Your task to perform on an android device: stop showing notifications on the lock screen Image 0: 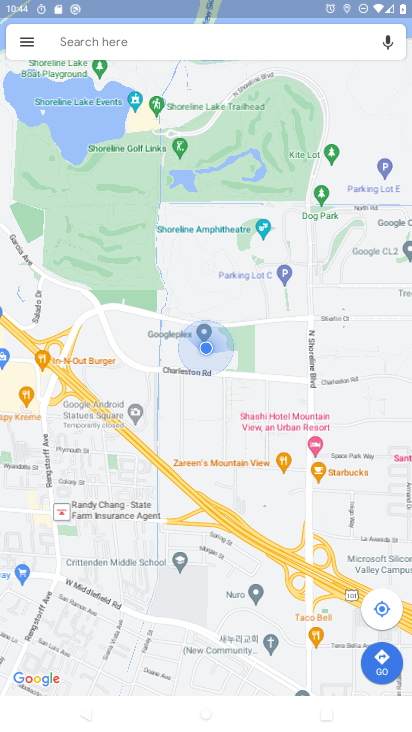
Step 0: press home button
Your task to perform on an android device: stop showing notifications on the lock screen Image 1: 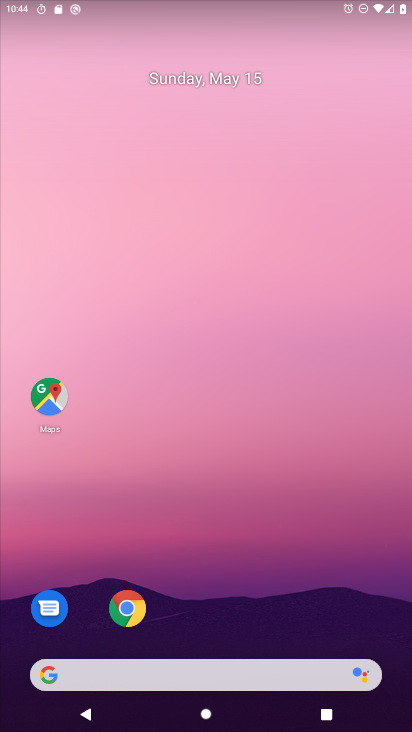
Step 1: drag from (301, 588) to (305, 91)
Your task to perform on an android device: stop showing notifications on the lock screen Image 2: 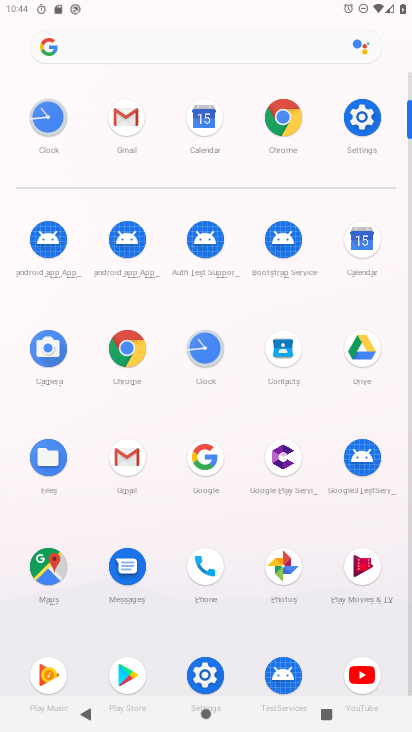
Step 2: drag from (317, 614) to (330, 310)
Your task to perform on an android device: stop showing notifications on the lock screen Image 3: 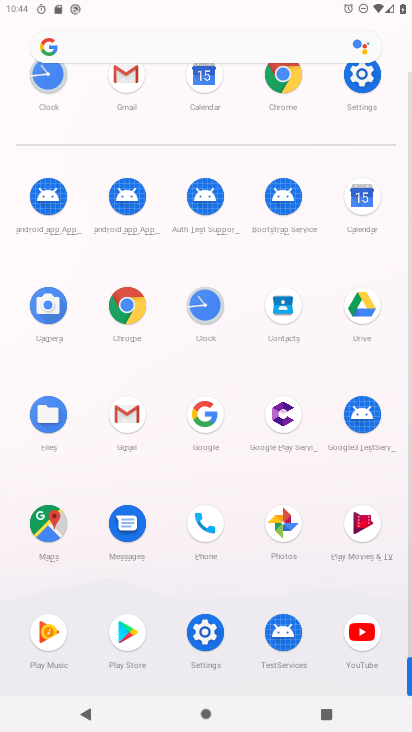
Step 3: click (210, 635)
Your task to perform on an android device: stop showing notifications on the lock screen Image 4: 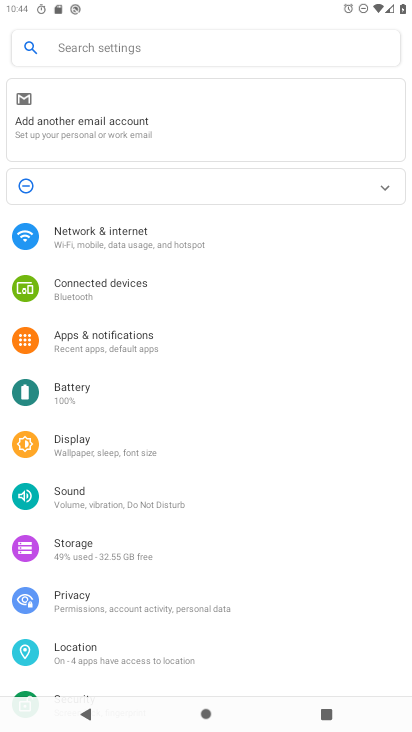
Step 4: drag from (200, 600) to (202, 357)
Your task to perform on an android device: stop showing notifications on the lock screen Image 5: 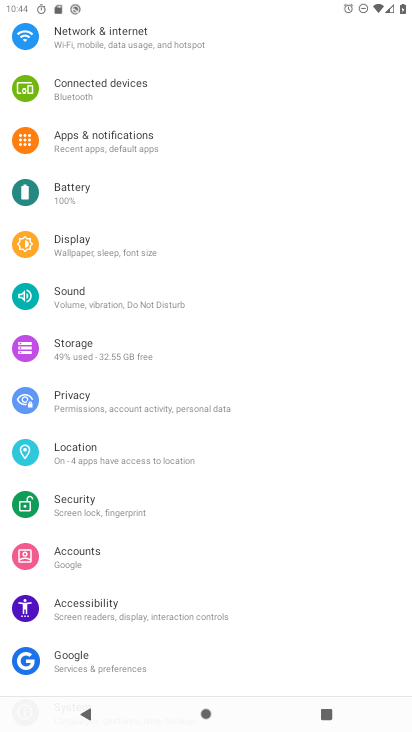
Step 5: click (153, 133)
Your task to perform on an android device: stop showing notifications on the lock screen Image 6: 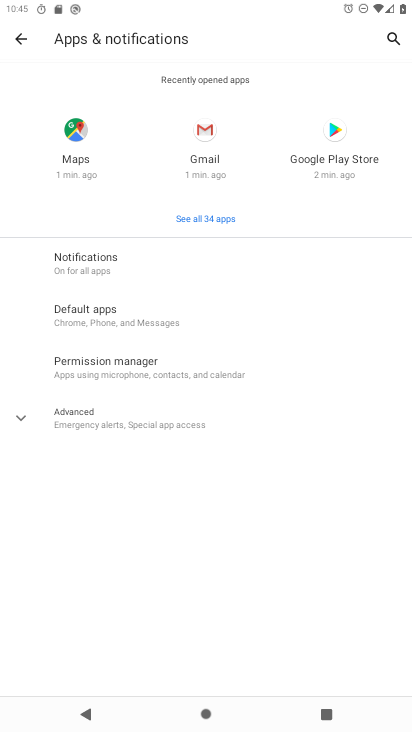
Step 6: click (108, 272)
Your task to perform on an android device: stop showing notifications on the lock screen Image 7: 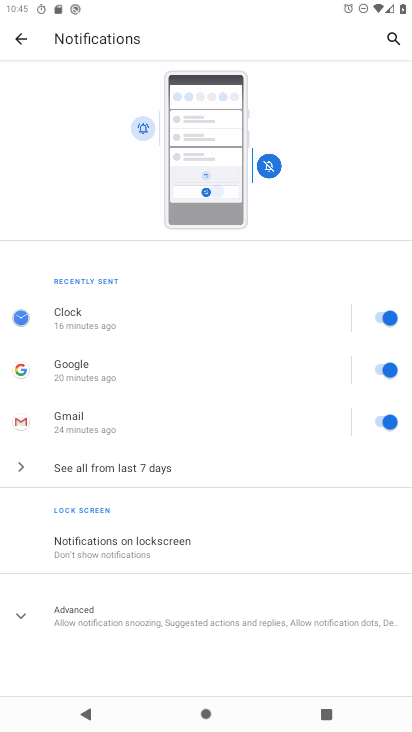
Step 7: click (180, 554)
Your task to perform on an android device: stop showing notifications on the lock screen Image 8: 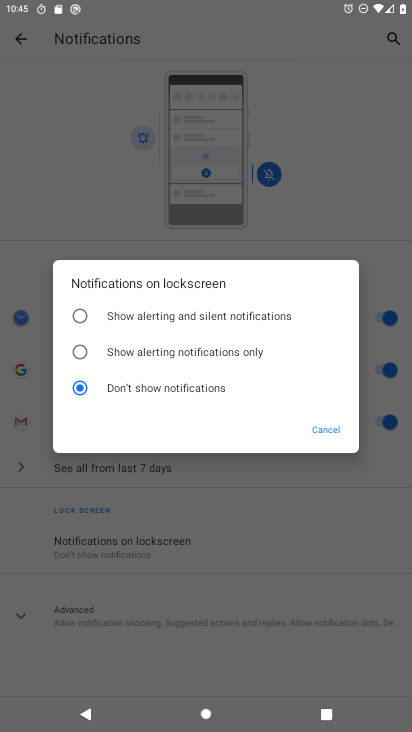
Step 8: task complete